Your task to perform on an android device: turn off picture-in-picture Image 0: 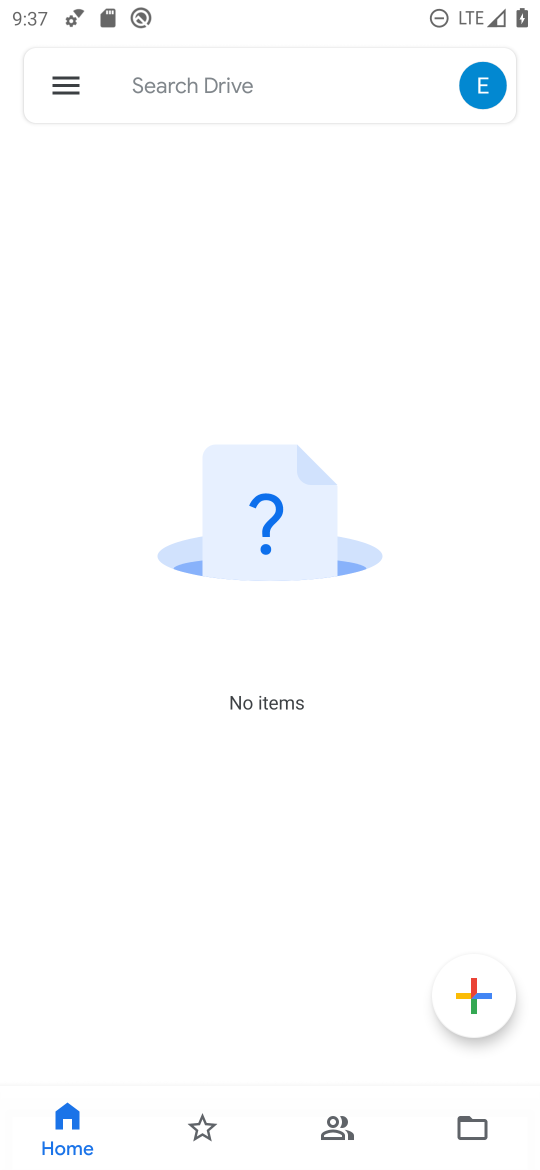
Step 0: press home button
Your task to perform on an android device: turn off picture-in-picture Image 1: 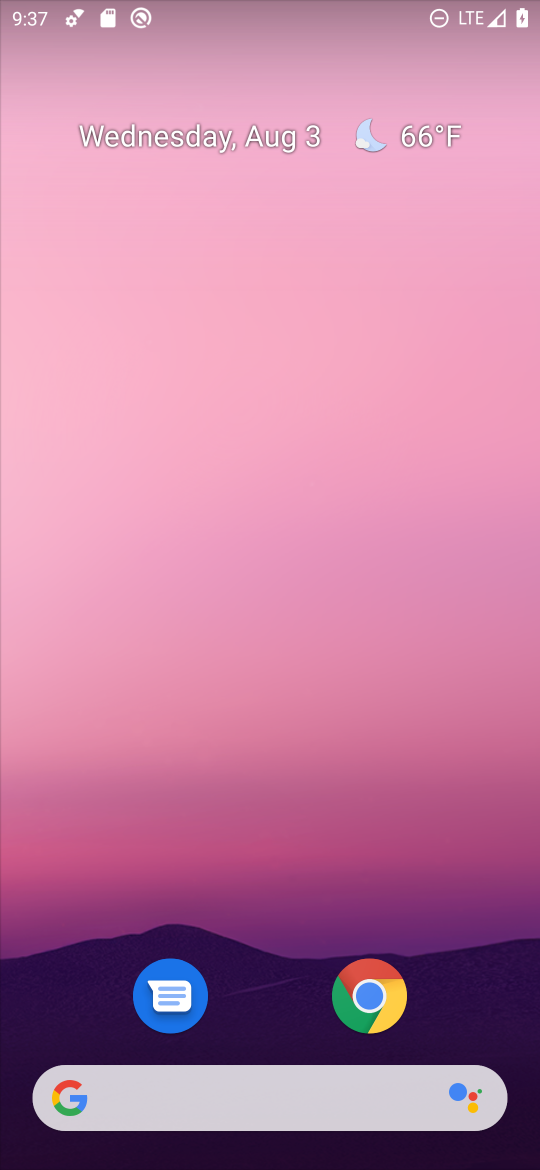
Step 1: click (370, 995)
Your task to perform on an android device: turn off picture-in-picture Image 2: 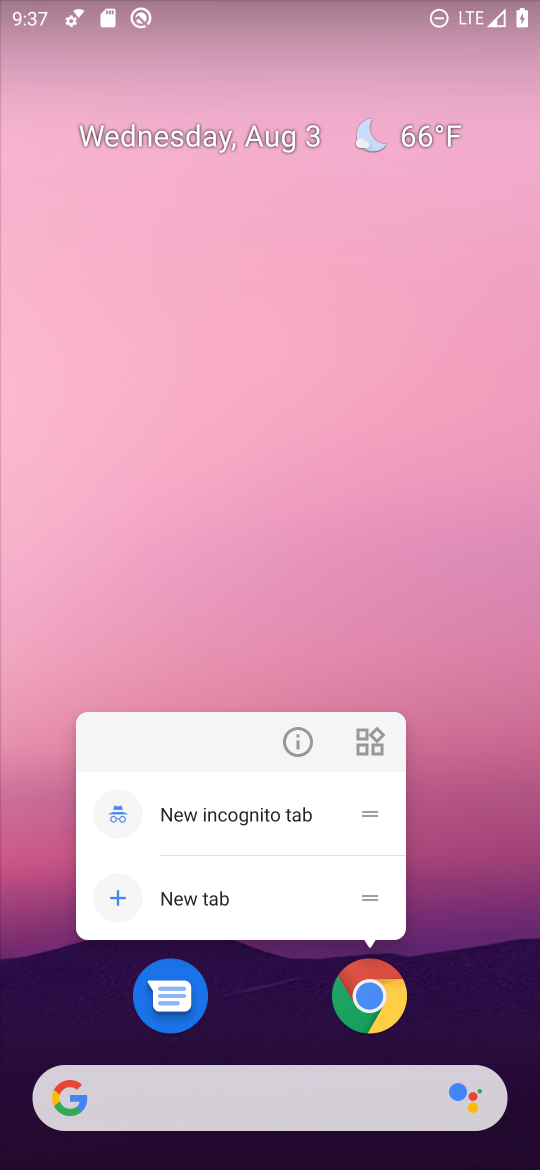
Step 2: click (298, 740)
Your task to perform on an android device: turn off picture-in-picture Image 3: 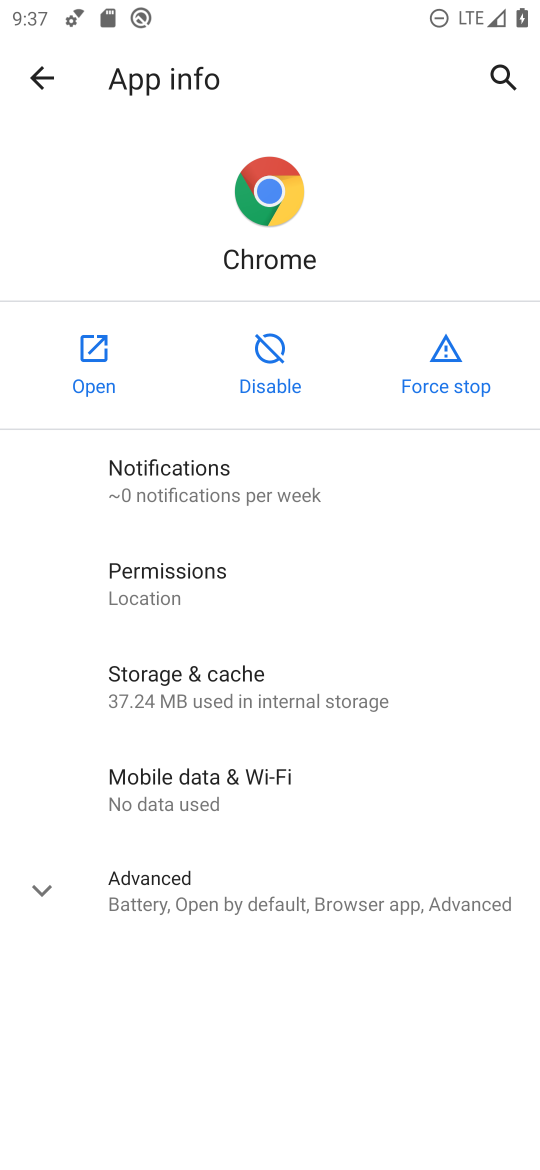
Step 3: click (46, 893)
Your task to perform on an android device: turn off picture-in-picture Image 4: 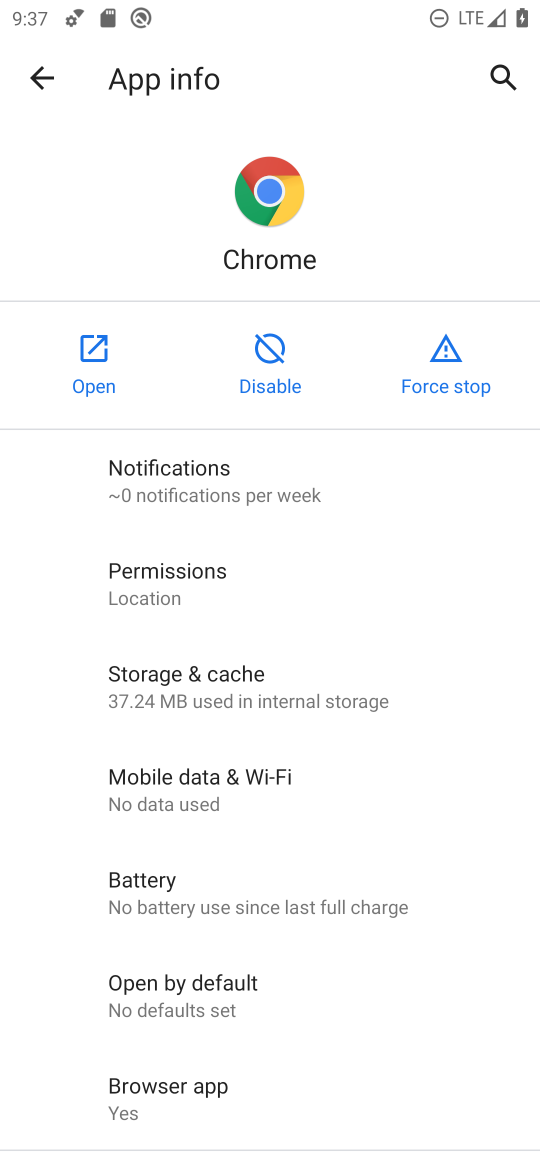
Step 4: drag from (361, 832) to (374, 78)
Your task to perform on an android device: turn off picture-in-picture Image 5: 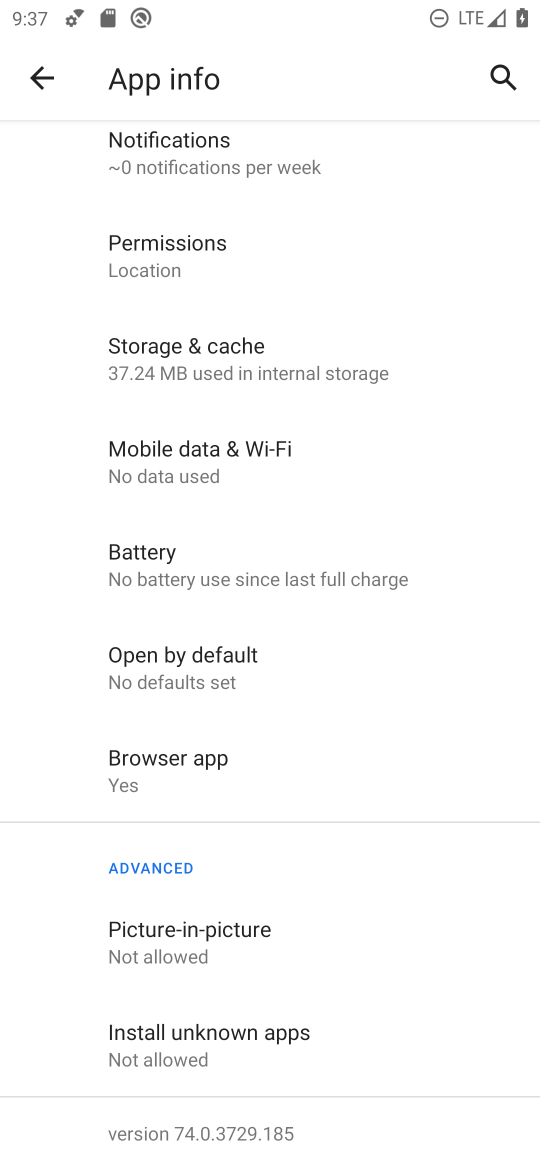
Step 5: click (273, 937)
Your task to perform on an android device: turn off picture-in-picture Image 6: 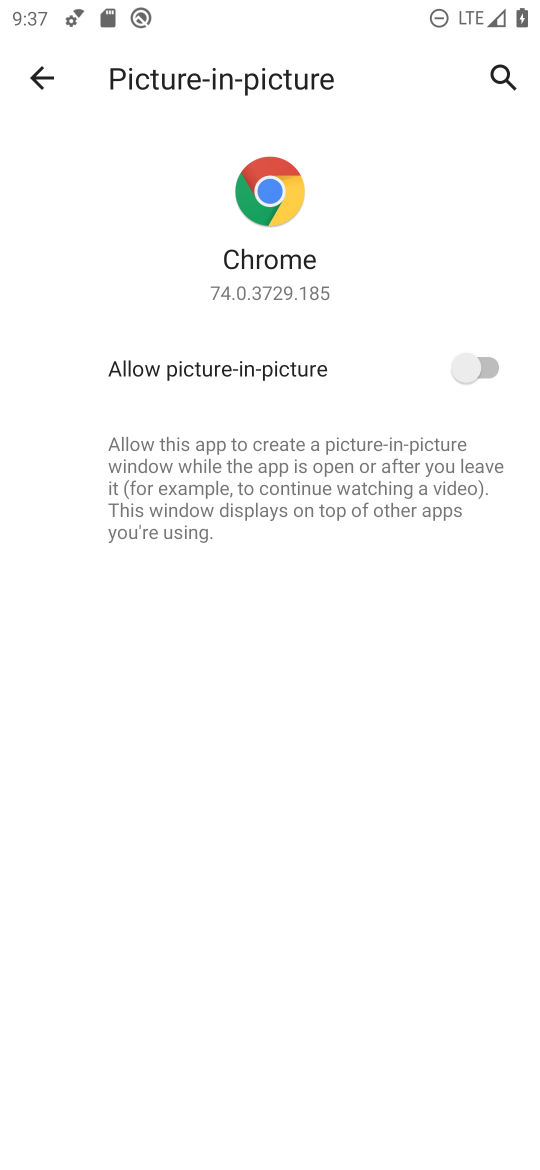
Step 6: task complete